Your task to perform on an android device: remove spam from my inbox in the gmail app Image 0: 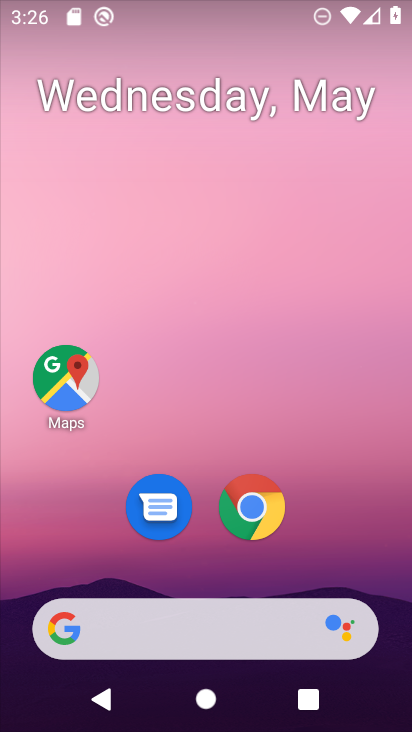
Step 0: drag from (227, 571) to (318, 30)
Your task to perform on an android device: remove spam from my inbox in the gmail app Image 1: 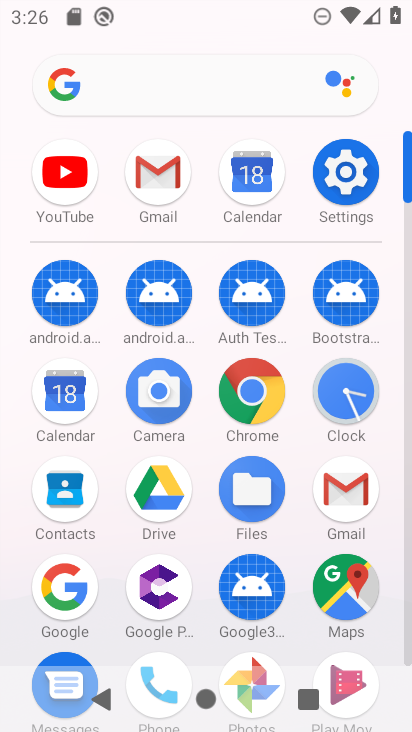
Step 1: click (161, 158)
Your task to perform on an android device: remove spam from my inbox in the gmail app Image 2: 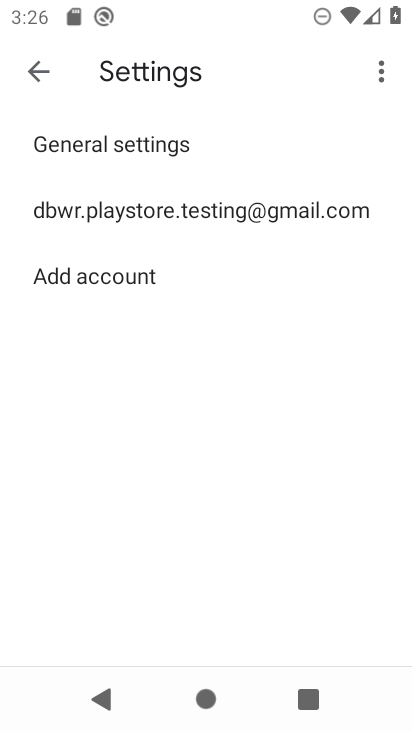
Step 2: click (46, 73)
Your task to perform on an android device: remove spam from my inbox in the gmail app Image 3: 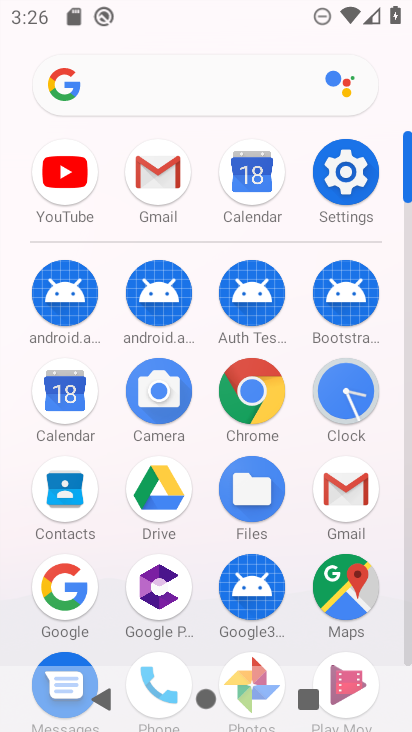
Step 3: click (163, 179)
Your task to perform on an android device: remove spam from my inbox in the gmail app Image 4: 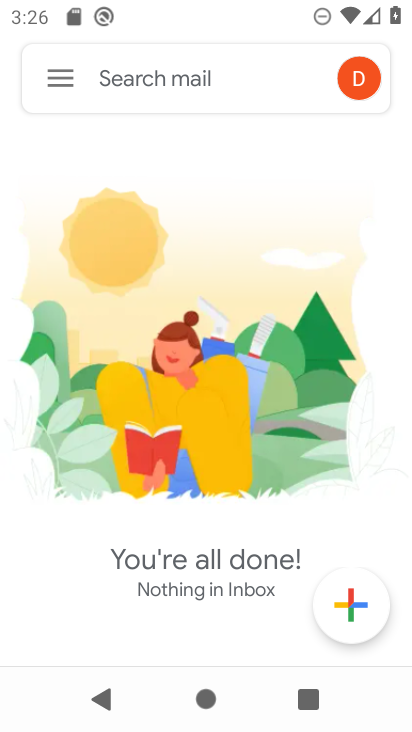
Step 4: click (70, 83)
Your task to perform on an android device: remove spam from my inbox in the gmail app Image 5: 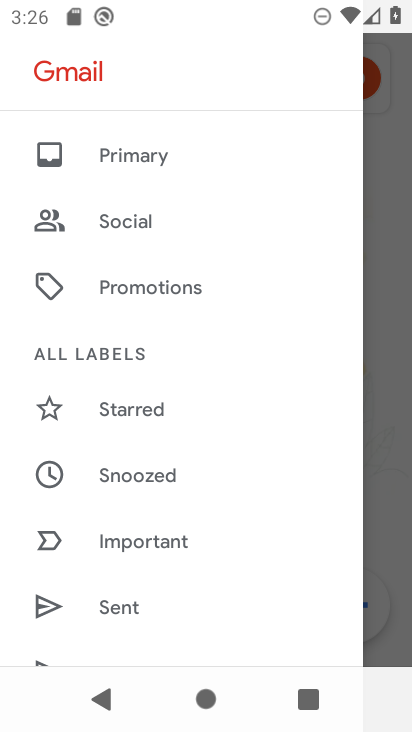
Step 5: drag from (121, 561) to (229, 65)
Your task to perform on an android device: remove spam from my inbox in the gmail app Image 6: 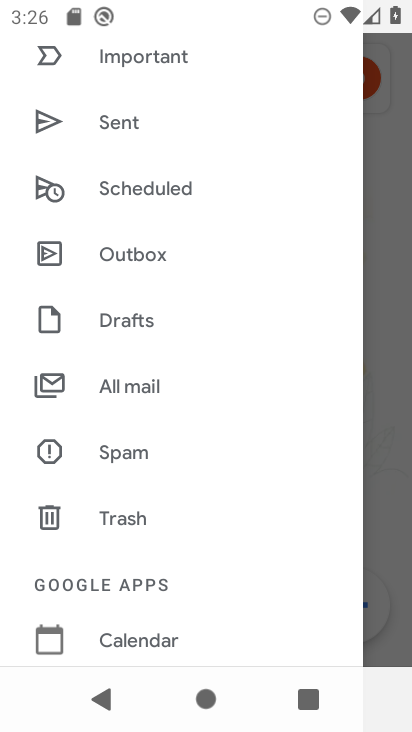
Step 6: click (119, 452)
Your task to perform on an android device: remove spam from my inbox in the gmail app Image 7: 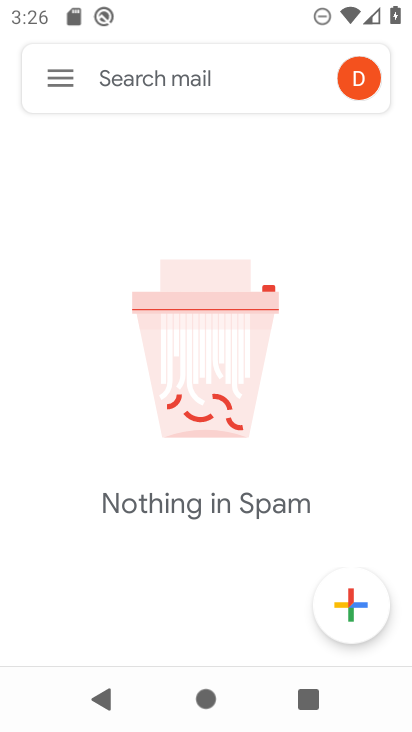
Step 7: task complete